Your task to perform on an android device: Open Reddit.com Image 0: 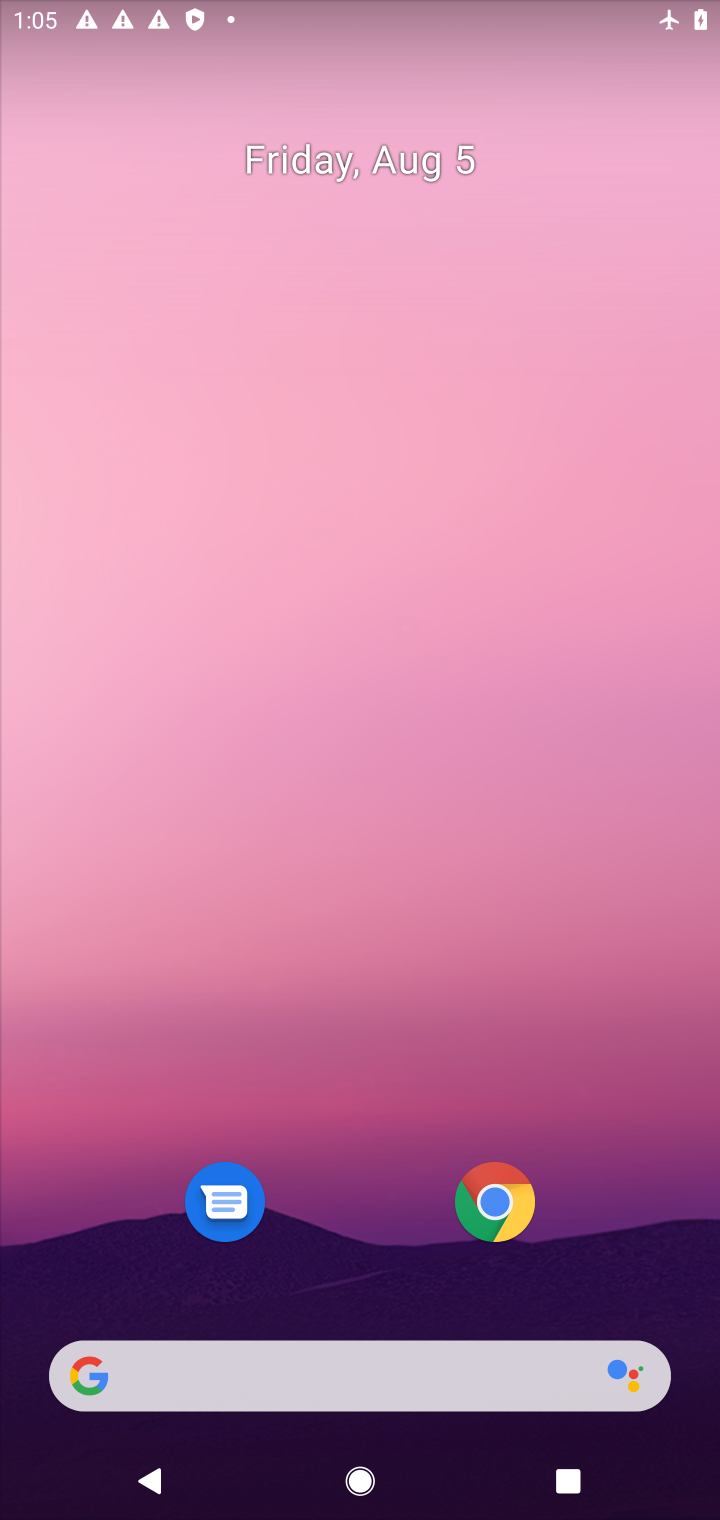
Step 0: drag from (404, 773) to (451, 219)
Your task to perform on an android device: Open Reddit.com Image 1: 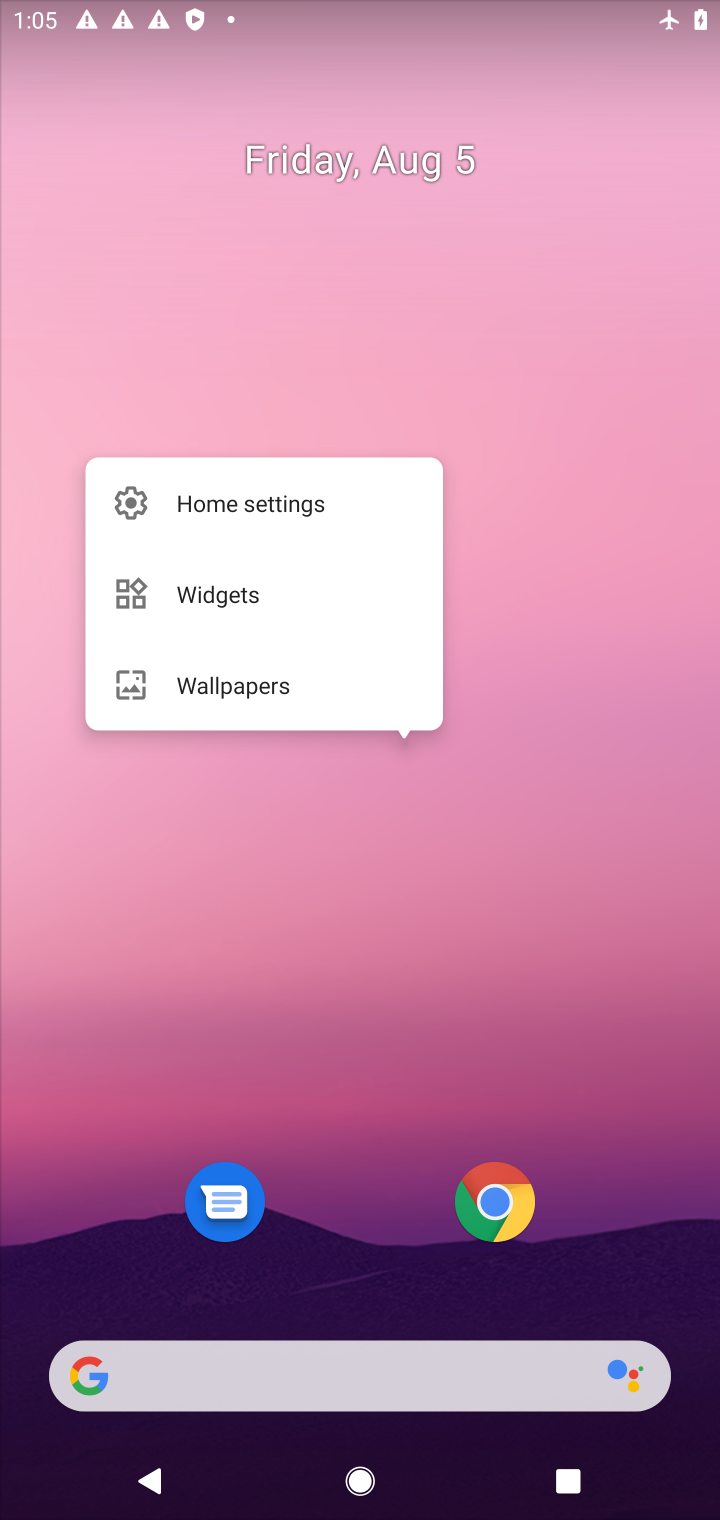
Step 1: click (656, 501)
Your task to perform on an android device: Open Reddit.com Image 2: 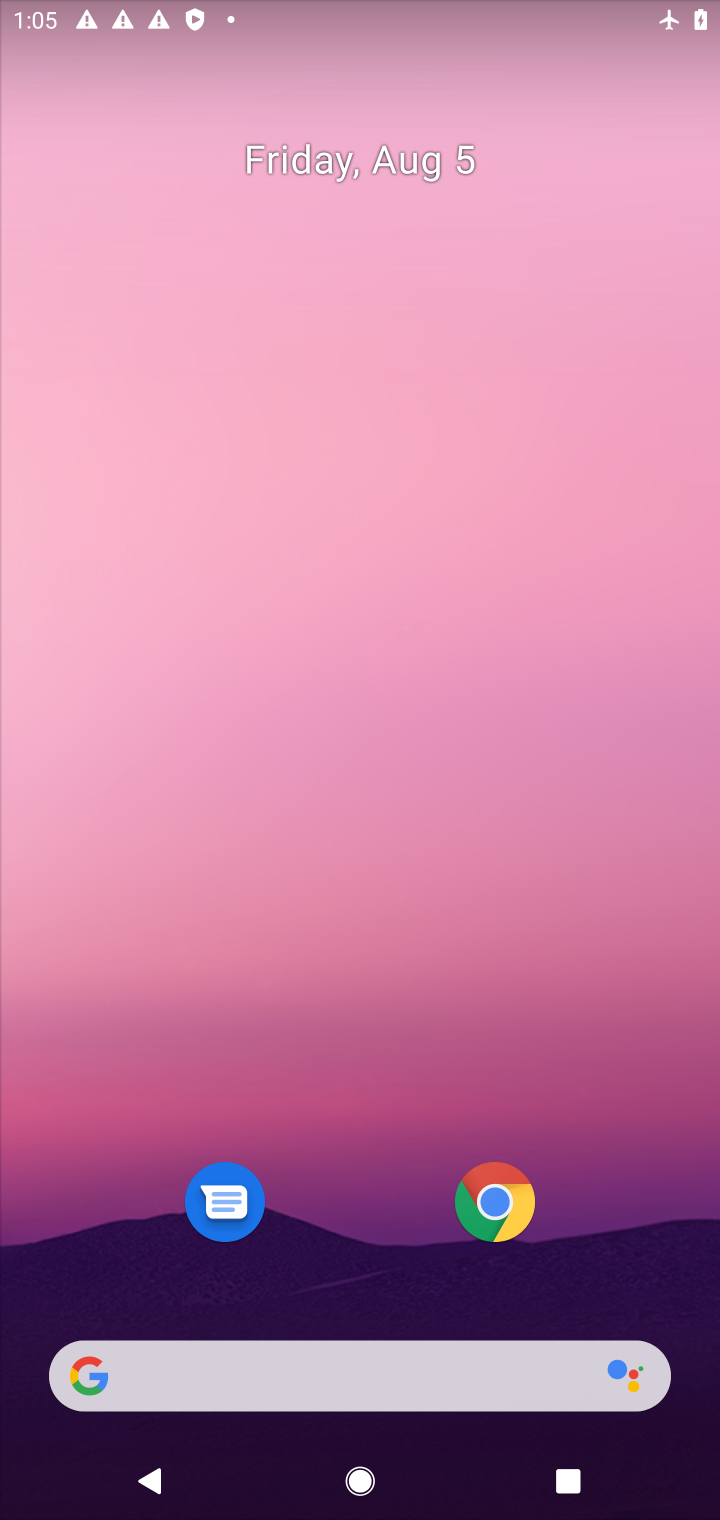
Step 2: drag from (592, 1274) to (615, 236)
Your task to perform on an android device: Open Reddit.com Image 3: 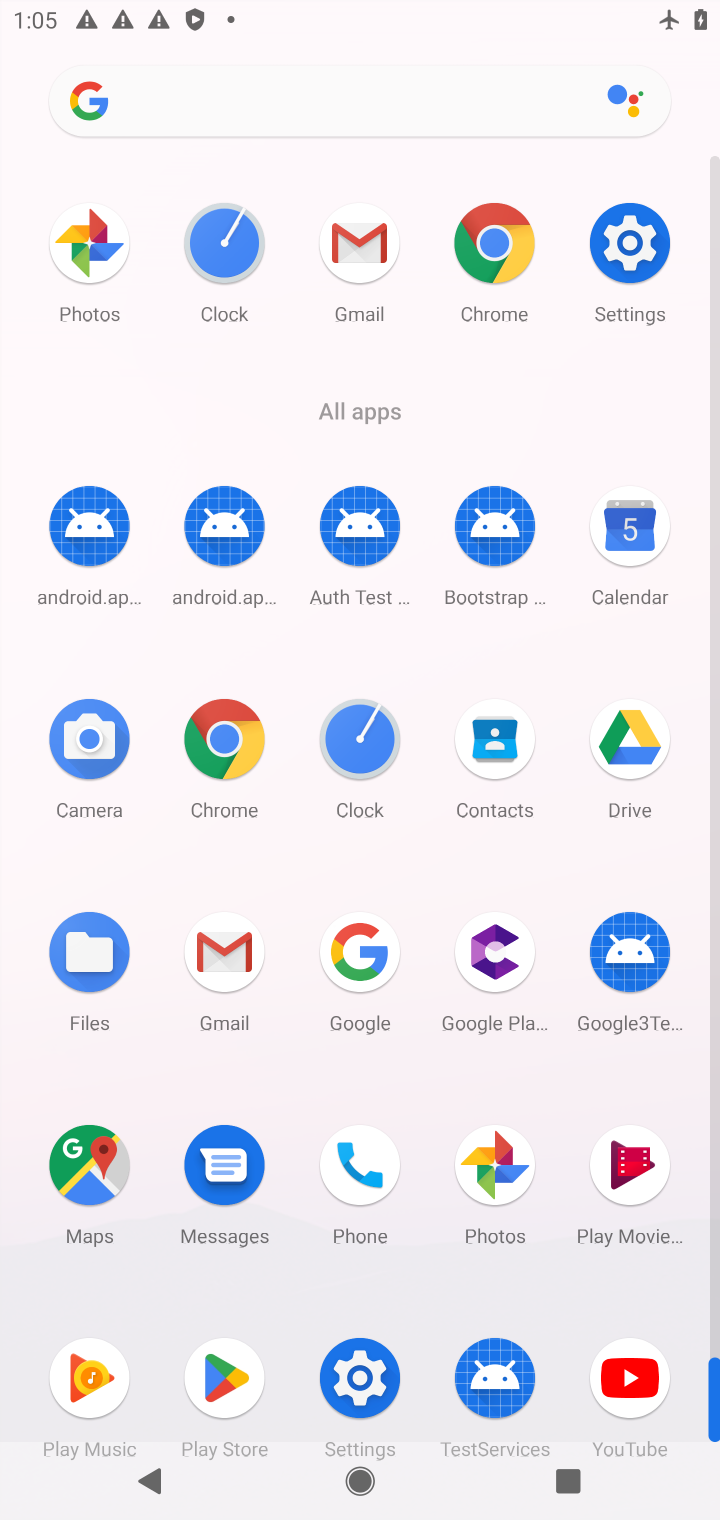
Step 3: click (228, 735)
Your task to perform on an android device: Open Reddit.com Image 4: 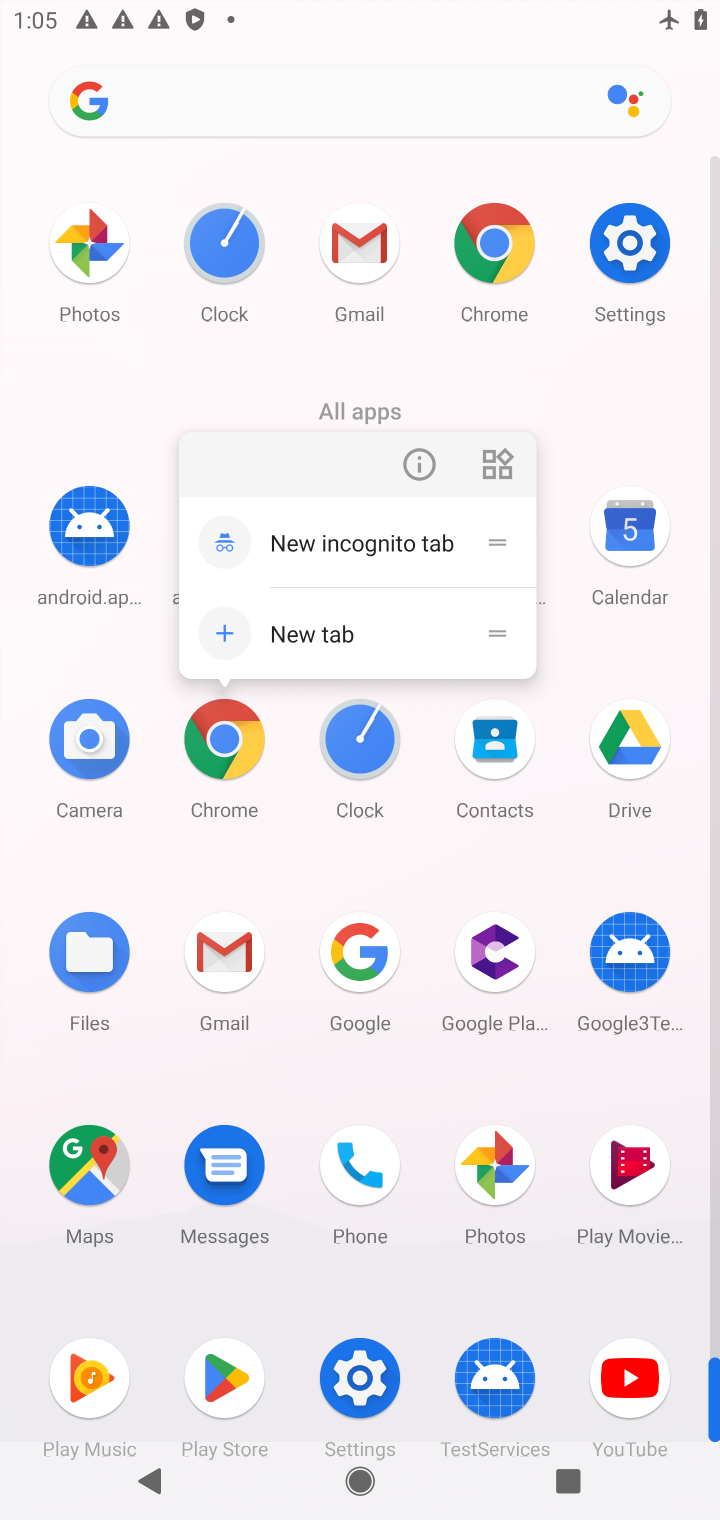
Step 4: click (226, 737)
Your task to perform on an android device: Open Reddit.com Image 5: 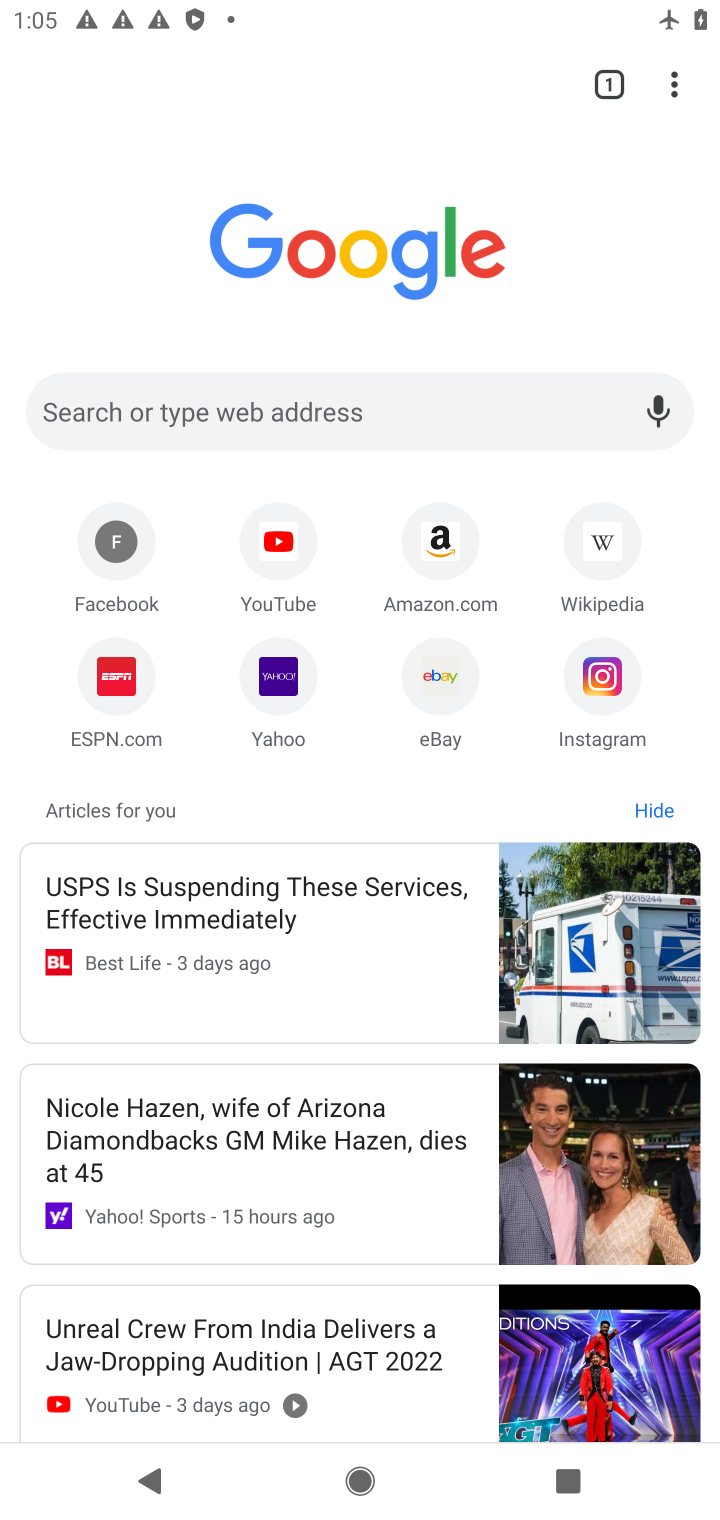
Step 5: click (331, 411)
Your task to perform on an android device: Open Reddit.com Image 6: 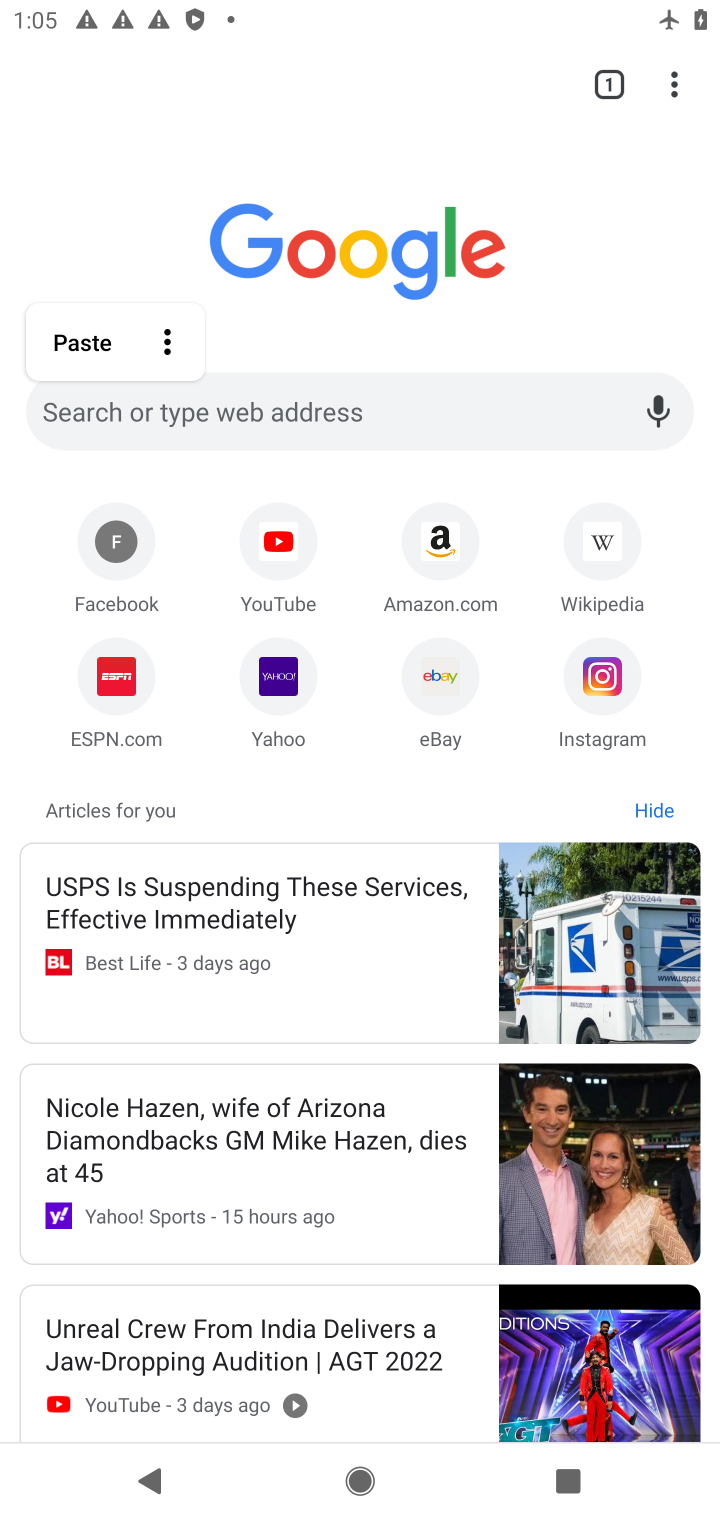
Step 6: click (433, 409)
Your task to perform on an android device: Open Reddit.com Image 7: 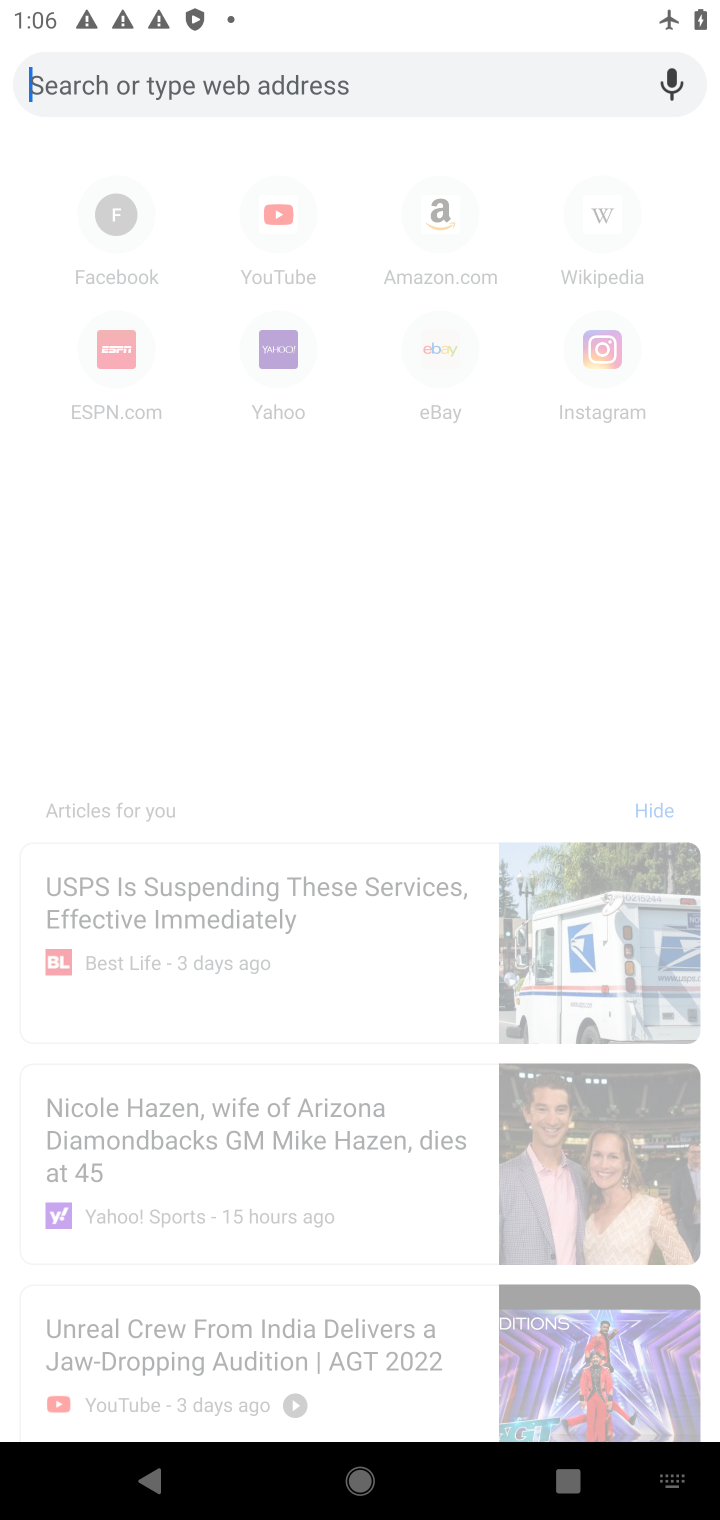
Step 7: type "reddit.com"
Your task to perform on an android device: Open Reddit.com Image 8: 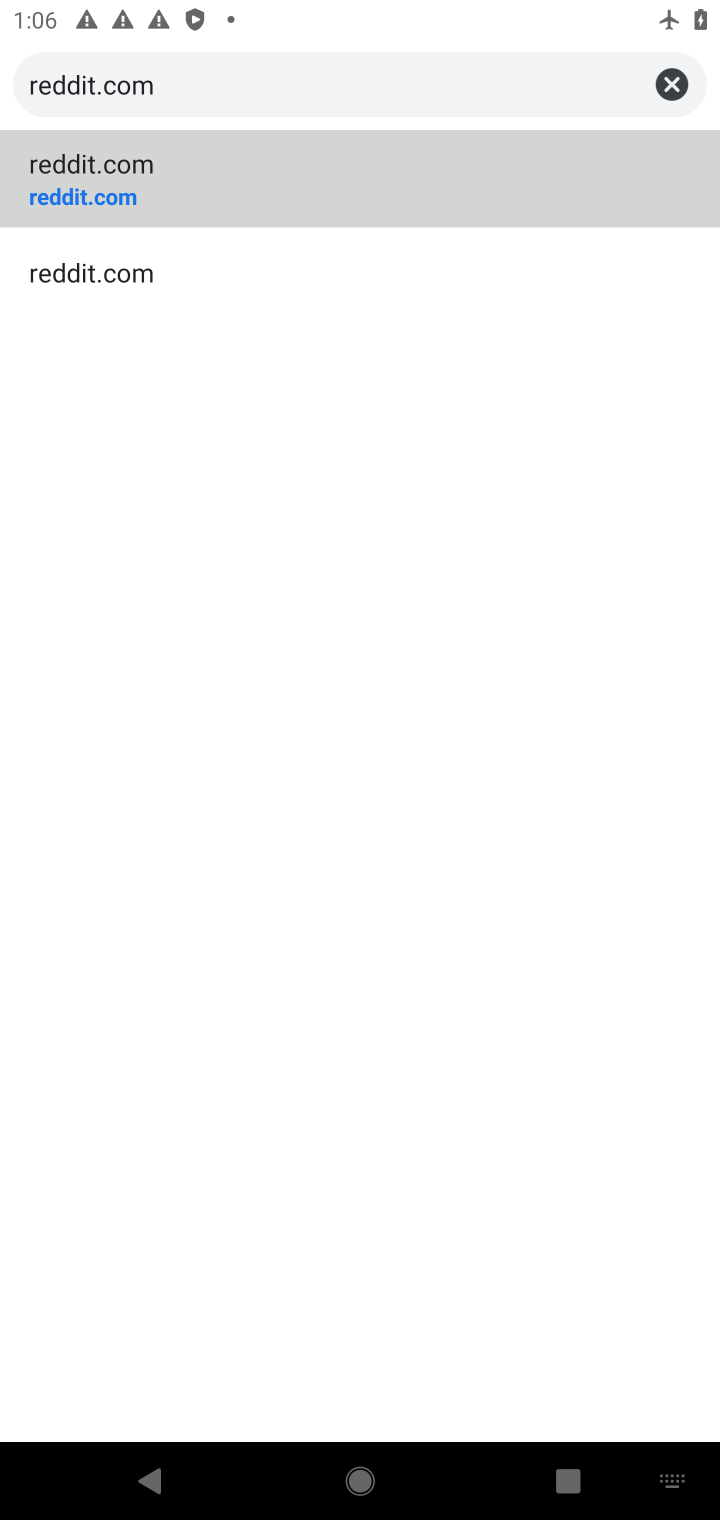
Step 8: click (69, 184)
Your task to perform on an android device: Open Reddit.com Image 9: 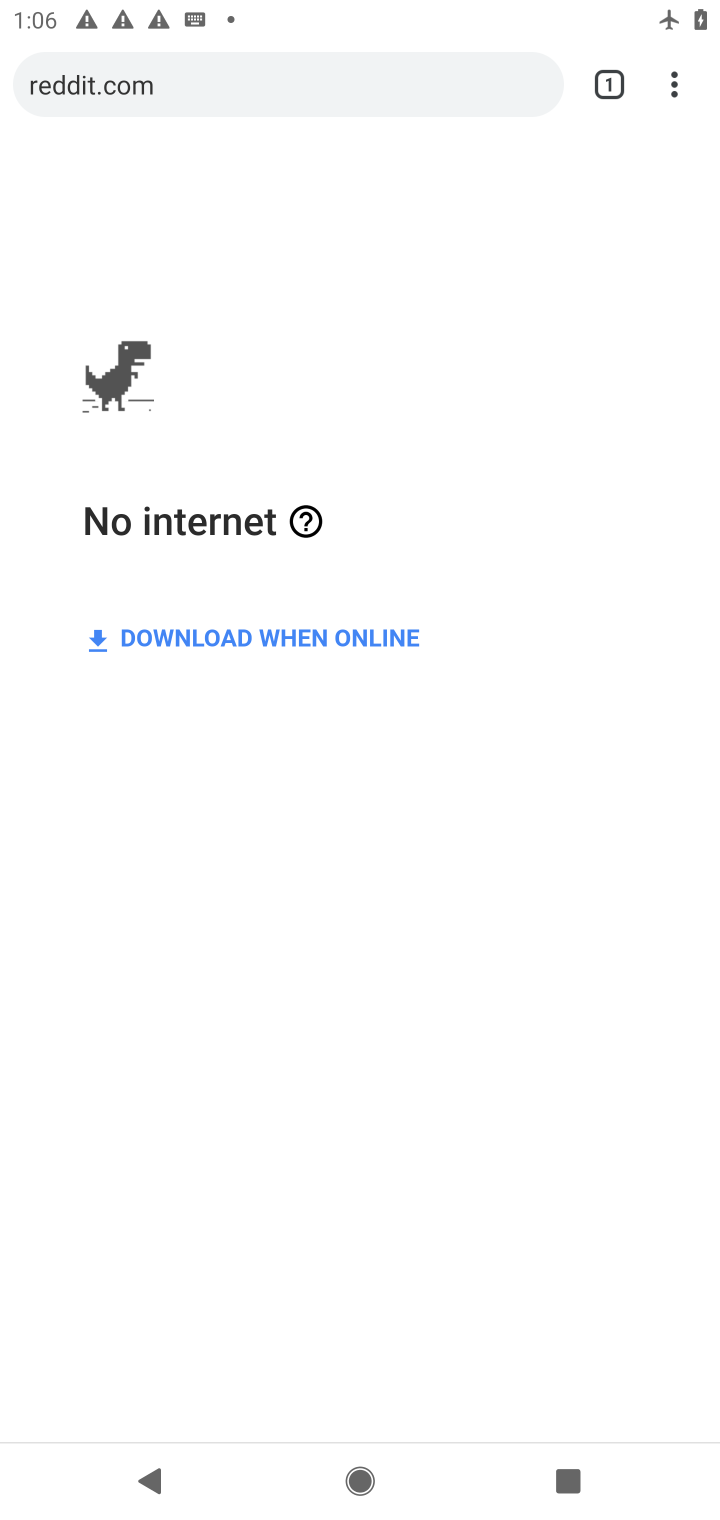
Step 9: task complete